Your task to perform on an android device: visit the assistant section in the google photos Image 0: 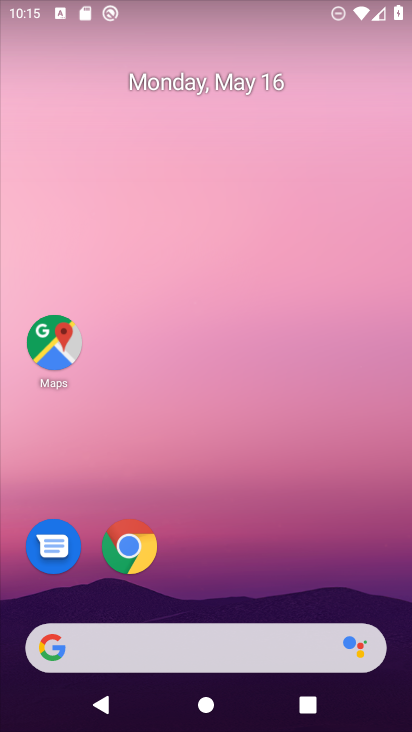
Step 0: drag from (141, 617) to (290, 28)
Your task to perform on an android device: visit the assistant section in the google photos Image 1: 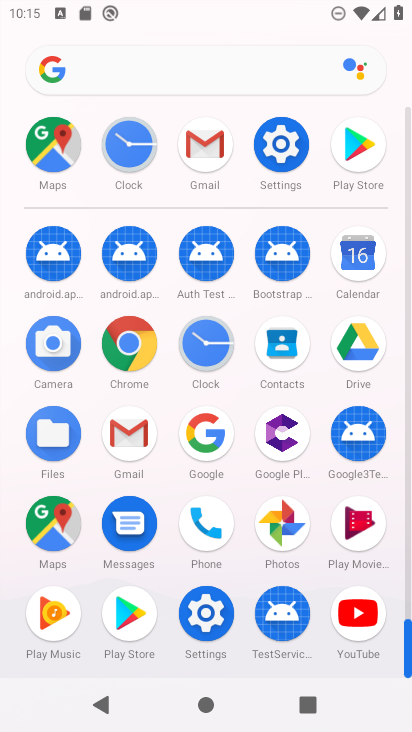
Step 1: click (289, 539)
Your task to perform on an android device: visit the assistant section in the google photos Image 2: 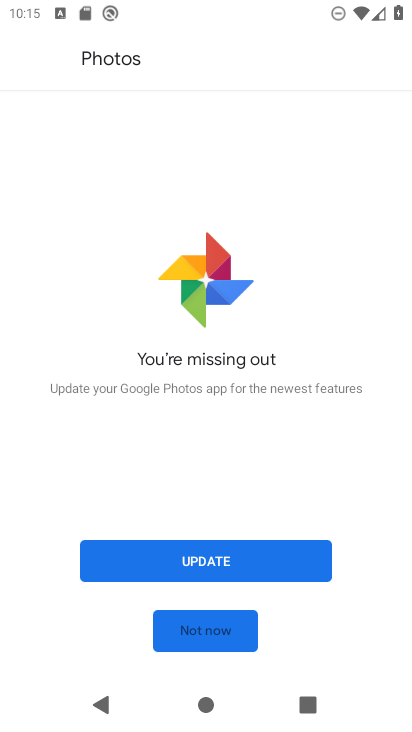
Step 2: click (252, 630)
Your task to perform on an android device: visit the assistant section in the google photos Image 3: 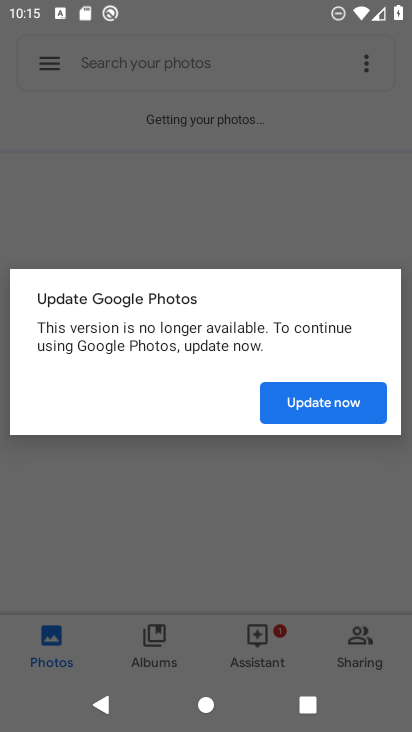
Step 3: click (293, 396)
Your task to perform on an android device: visit the assistant section in the google photos Image 4: 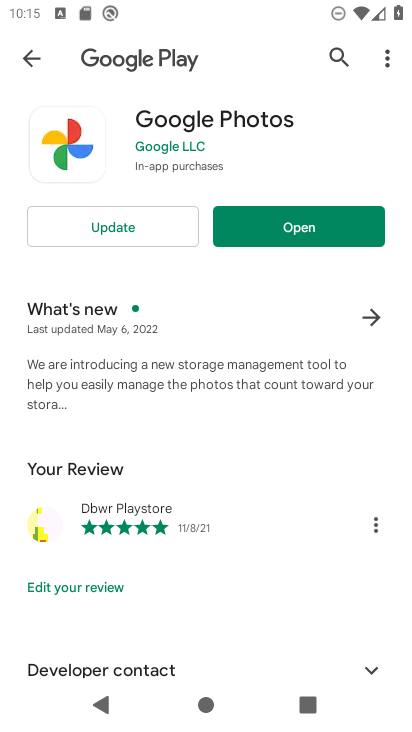
Step 4: click (295, 219)
Your task to perform on an android device: visit the assistant section in the google photos Image 5: 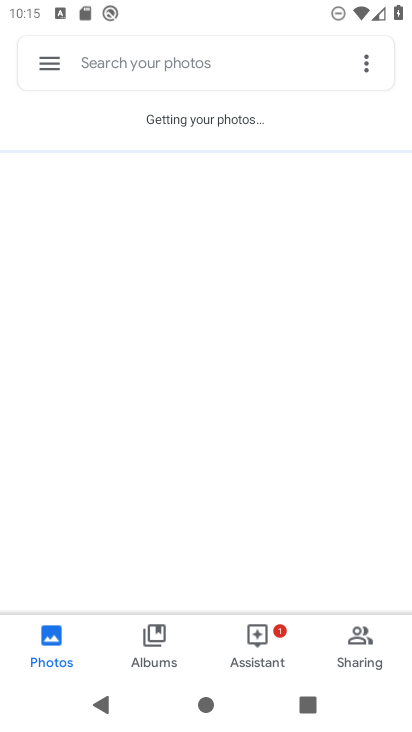
Step 5: click (257, 654)
Your task to perform on an android device: visit the assistant section in the google photos Image 6: 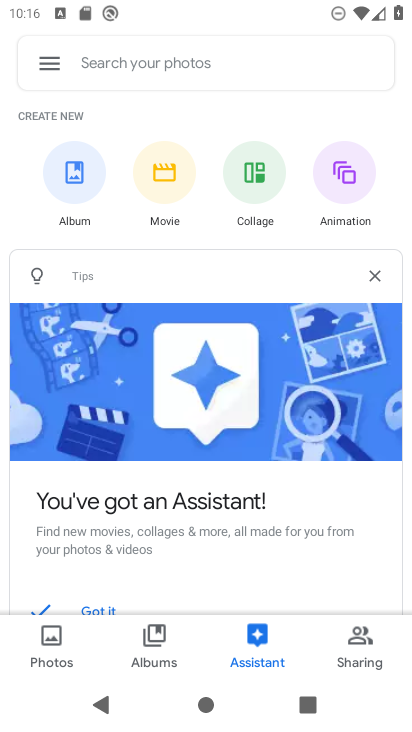
Step 6: task complete